Your task to perform on an android device: change your default location settings in chrome Image 0: 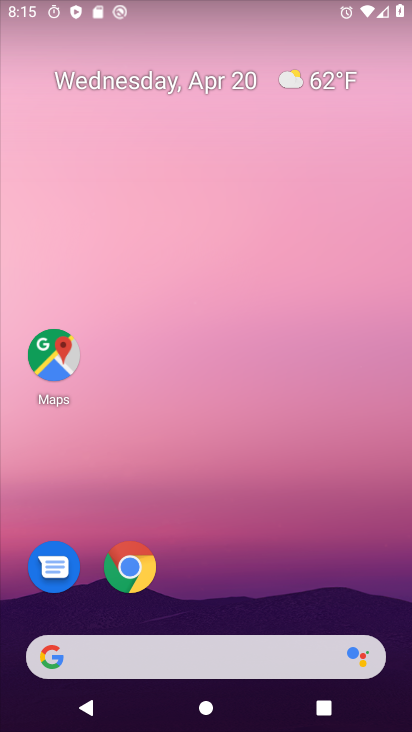
Step 0: click (139, 576)
Your task to perform on an android device: change your default location settings in chrome Image 1: 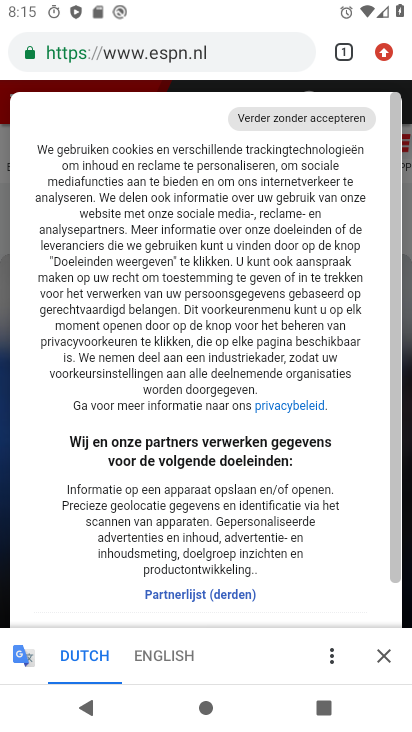
Step 1: click (384, 55)
Your task to perform on an android device: change your default location settings in chrome Image 2: 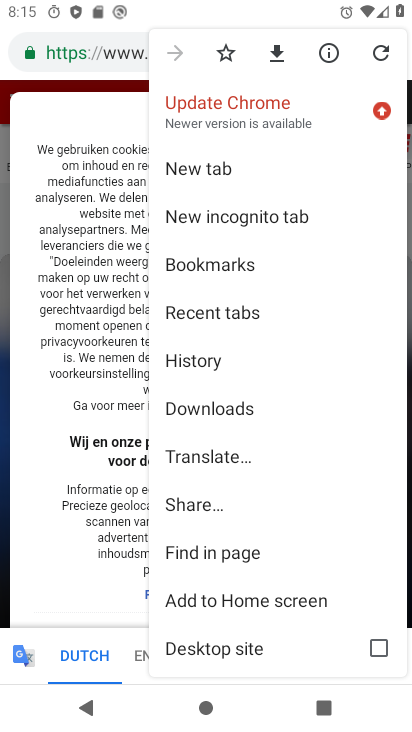
Step 2: drag from (298, 570) to (325, 362)
Your task to perform on an android device: change your default location settings in chrome Image 3: 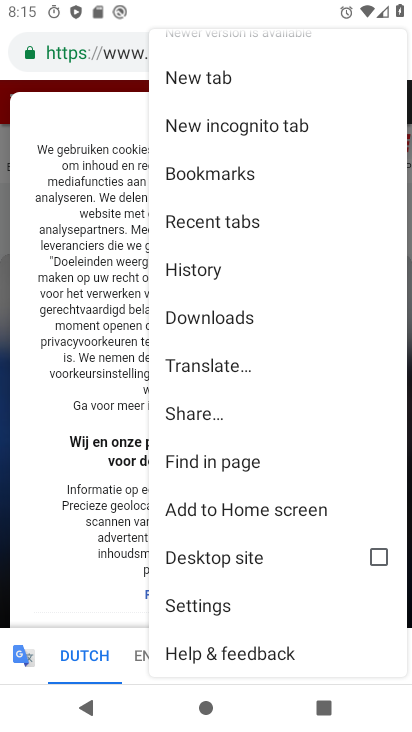
Step 3: click (214, 606)
Your task to perform on an android device: change your default location settings in chrome Image 4: 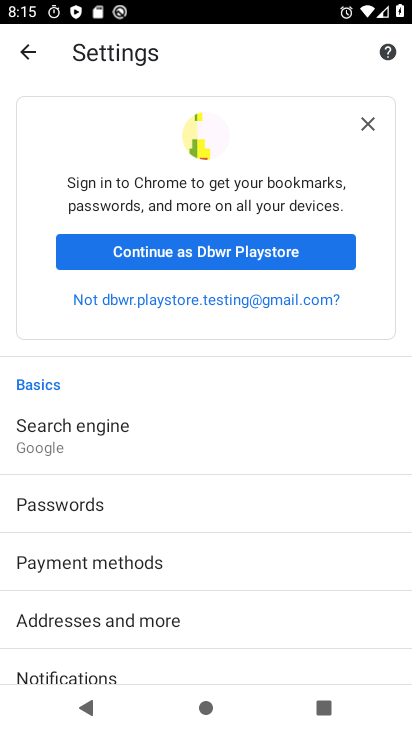
Step 4: drag from (236, 567) to (241, 182)
Your task to perform on an android device: change your default location settings in chrome Image 5: 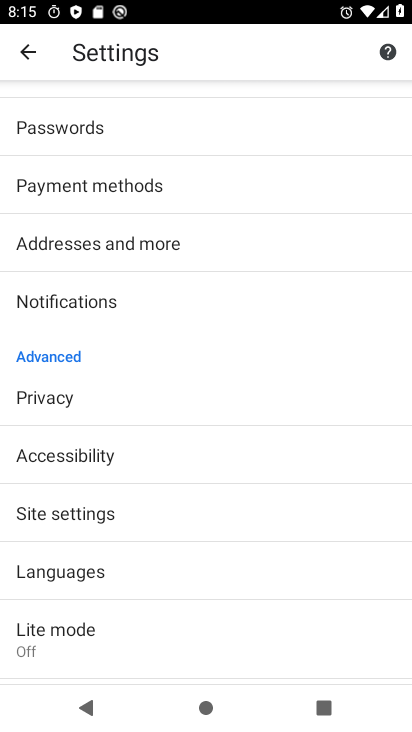
Step 5: click (113, 515)
Your task to perform on an android device: change your default location settings in chrome Image 6: 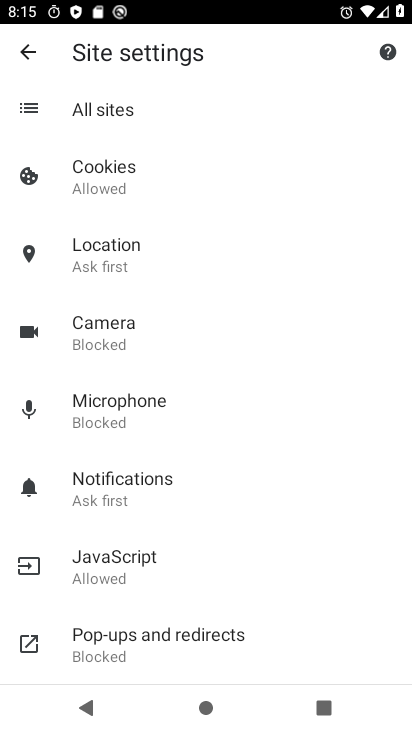
Step 6: click (111, 261)
Your task to perform on an android device: change your default location settings in chrome Image 7: 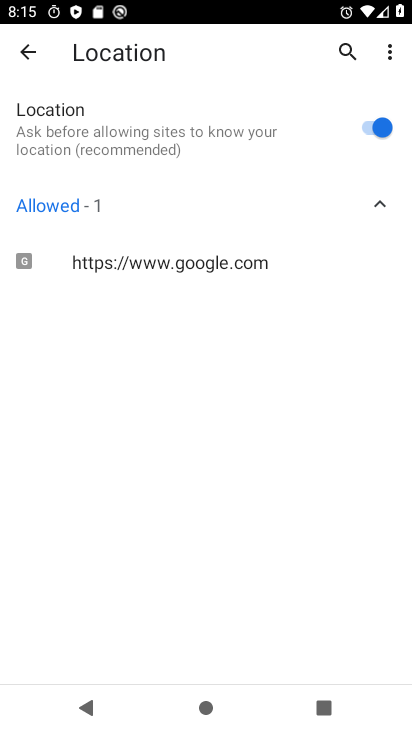
Step 7: click (383, 134)
Your task to perform on an android device: change your default location settings in chrome Image 8: 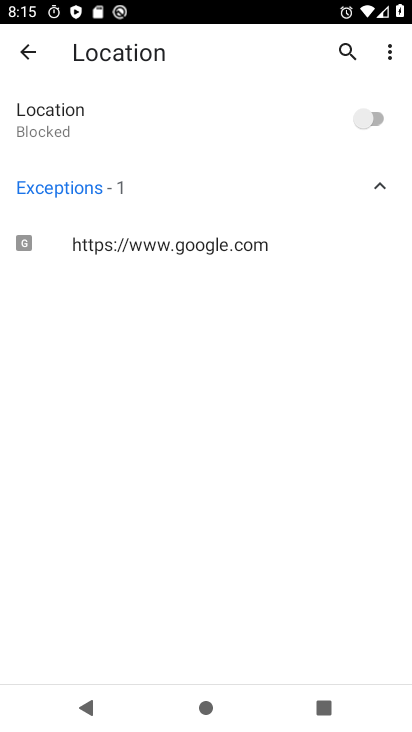
Step 8: task complete